Your task to perform on an android device: Go to calendar. Show me events next week Image 0: 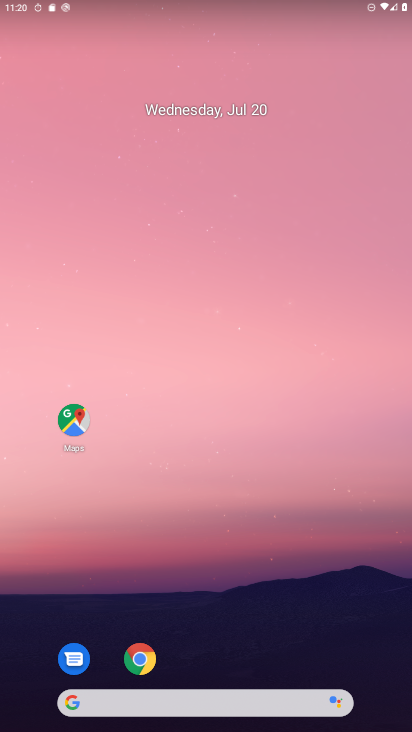
Step 0: drag from (223, 23) to (260, 11)
Your task to perform on an android device: Go to calendar. Show me events next week Image 1: 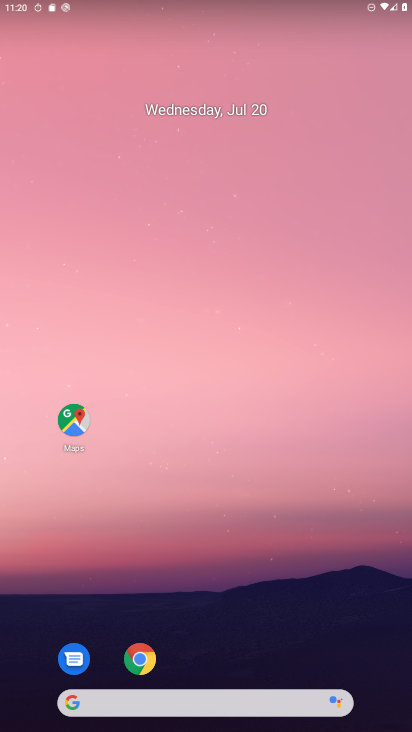
Step 1: drag from (326, 606) to (223, 82)
Your task to perform on an android device: Go to calendar. Show me events next week Image 2: 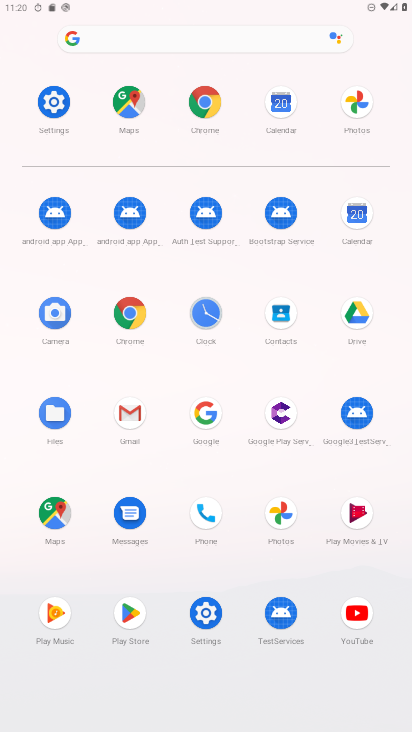
Step 2: click (359, 222)
Your task to perform on an android device: Go to calendar. Show me events next week Image 3: 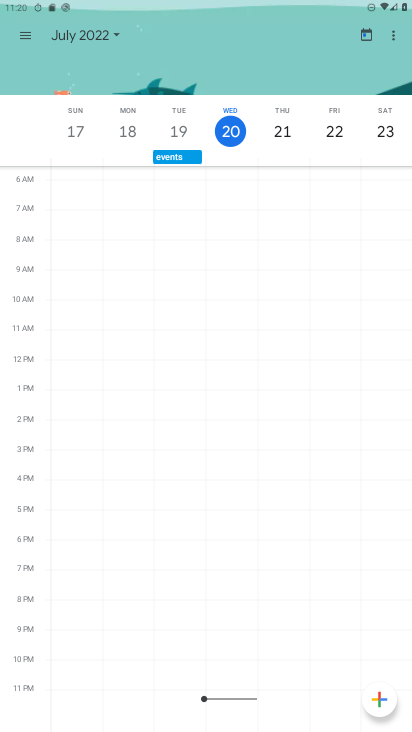
Step 3: click (107, 26)
Your task to perform on an android device: Go to calendar. Show me events next week Image 4: 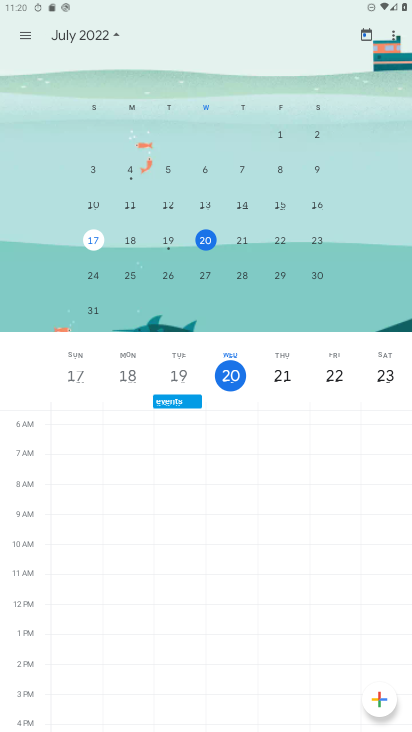
Step 4: click (169, 263)
Your task to perform on an android device: Go to calendar. Show me events next week Image 5: 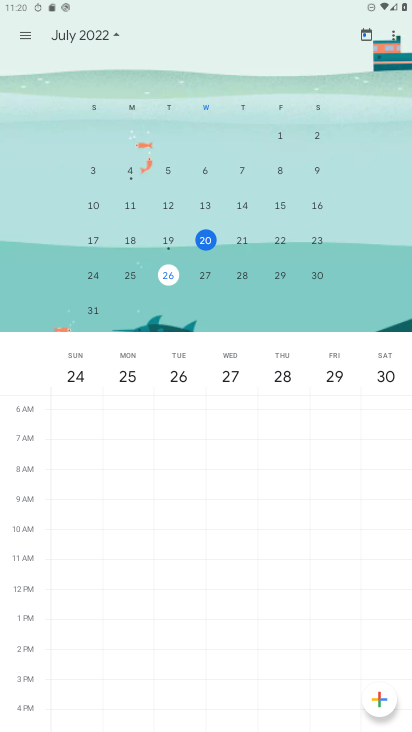
Step 5: task complete